Your task to perform on an android device: Search for seafood restaurants on Google Maps Image 0: 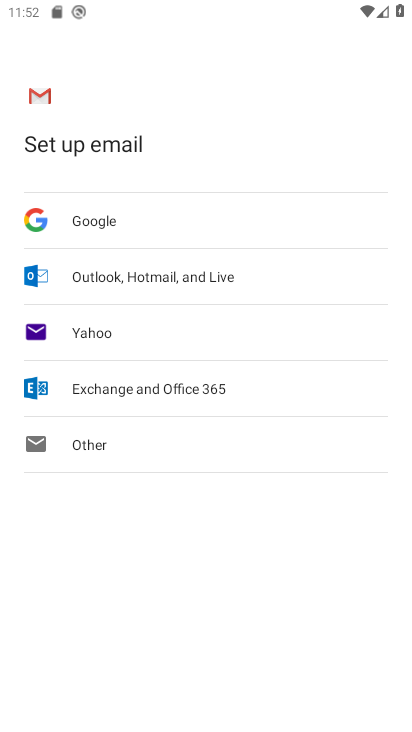
Step 0: press back button
Your task to perform on an android device: Search for seafood restaurants on Google Maps Image 1: 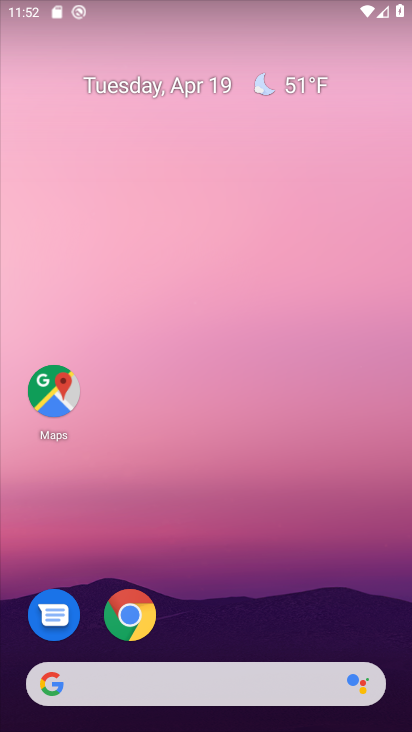
Step 1: click (64, 408)
Your task to perform on an android device: Search for seafood restaurants on Google Maps Image 2: 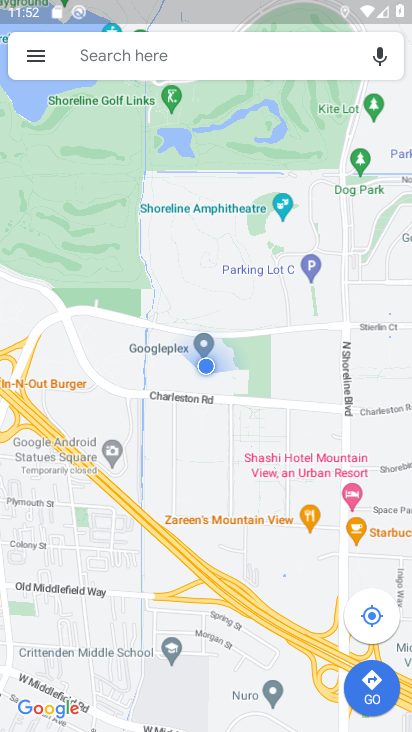
Step 2: click (143, 69)
Your task to perform on an android device: Search for seafood restaurants on Google Maps Image 3: 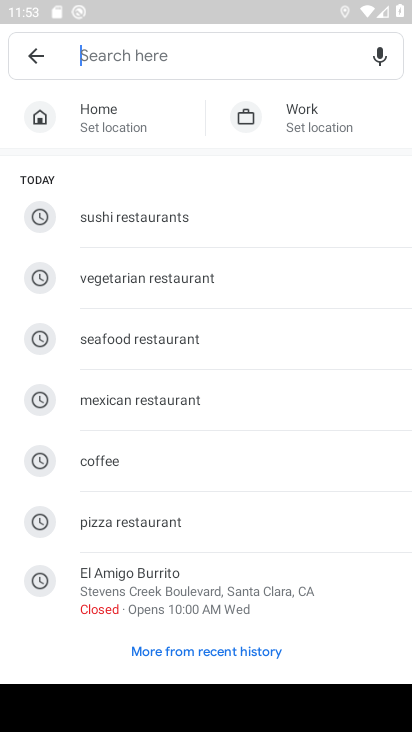
Step 3: click (157, 350)
Your task to perform on an android device: Search for seafood restaurants on Google Maps Image 4: 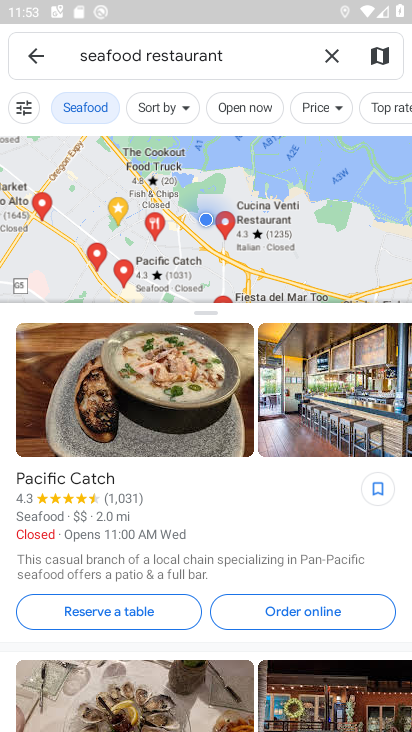
Step 4: task complete